Your task to perform on an android device: Open settings Image 0: 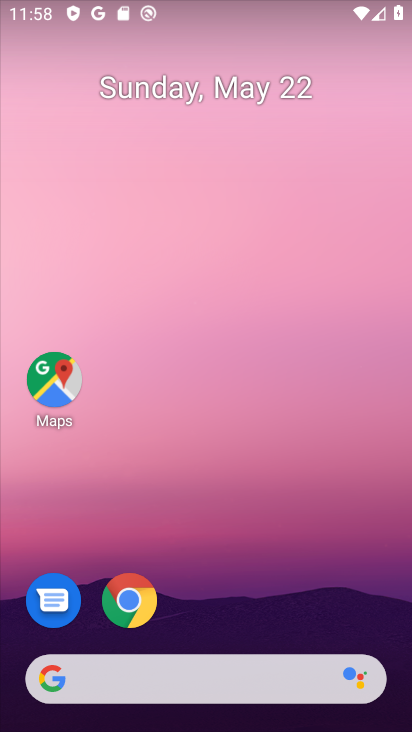
Step 0: drag from (313, 353) to (272, 105)
Your task to perform on an android device: Open settings Image 1: 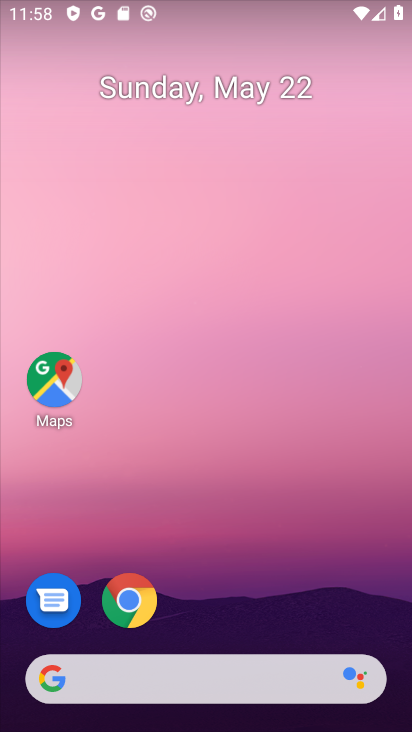
Step 1: drag from (353, 520) to (298, 57)
Your task to perform on an android device: Open settings Image 2: 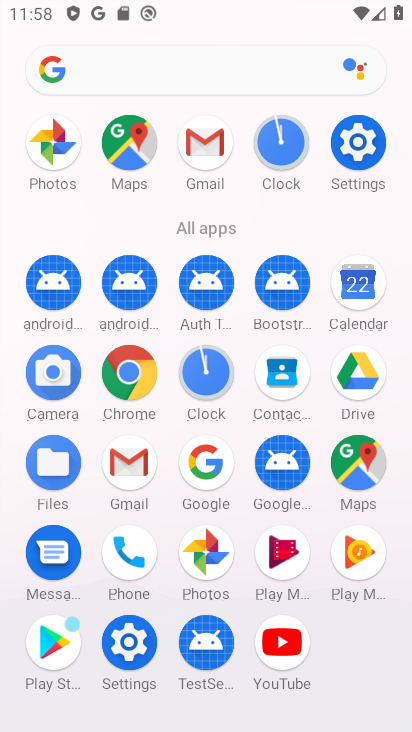
Step 2: click (348, 147)
Your task to perform on an android device: Open settings Image 3: 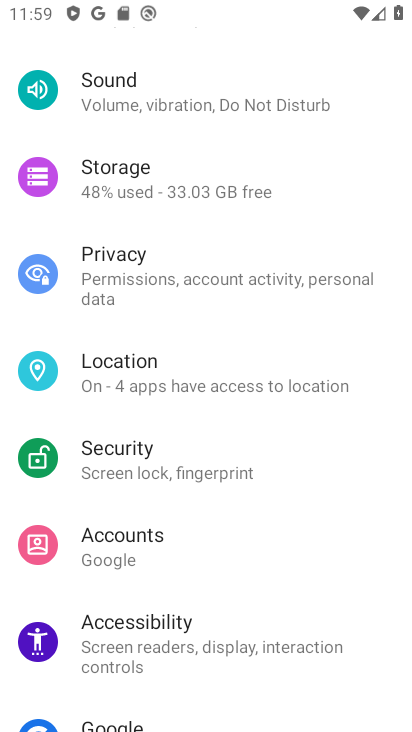
Step 3: task complete